Your task to perform on an android device: uninstall "Google News" Image 0: 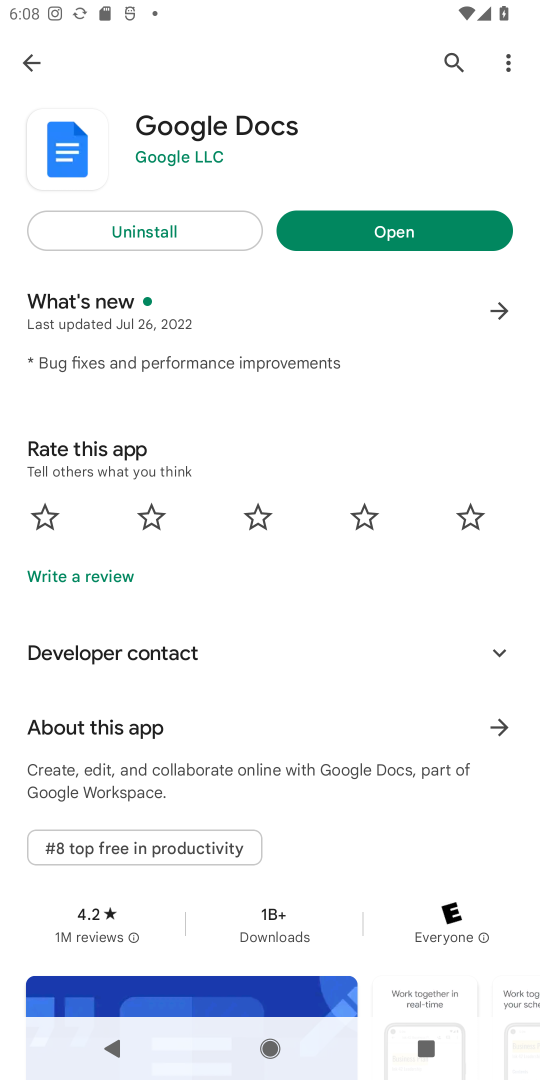
Step 0: press home button
Your task to perform on an android device: uninstall "Google News" Image 1: 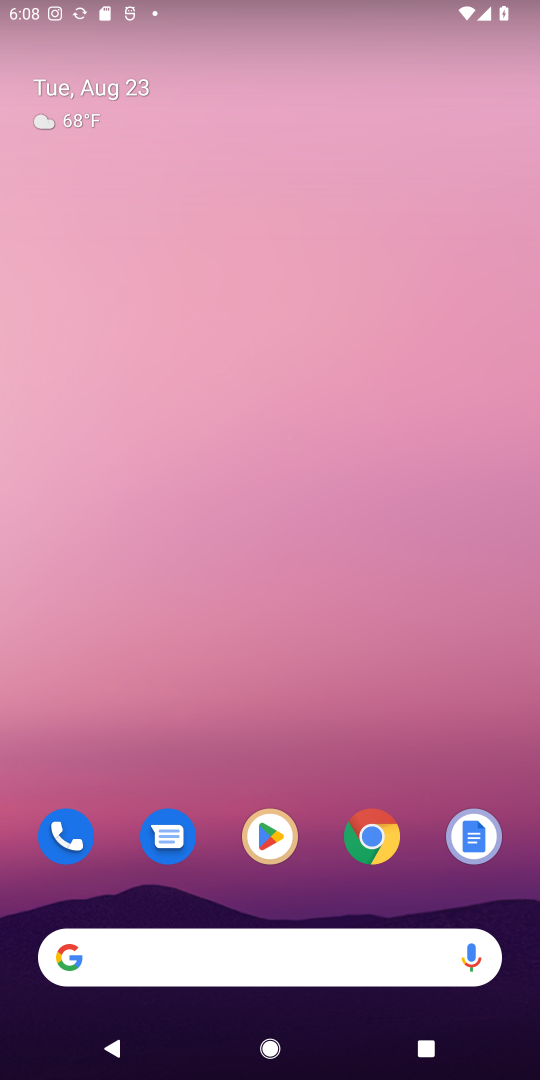
Step 1: click (275, 837)
Your task to perform on an android device: uninstall "Google News" Image 2: 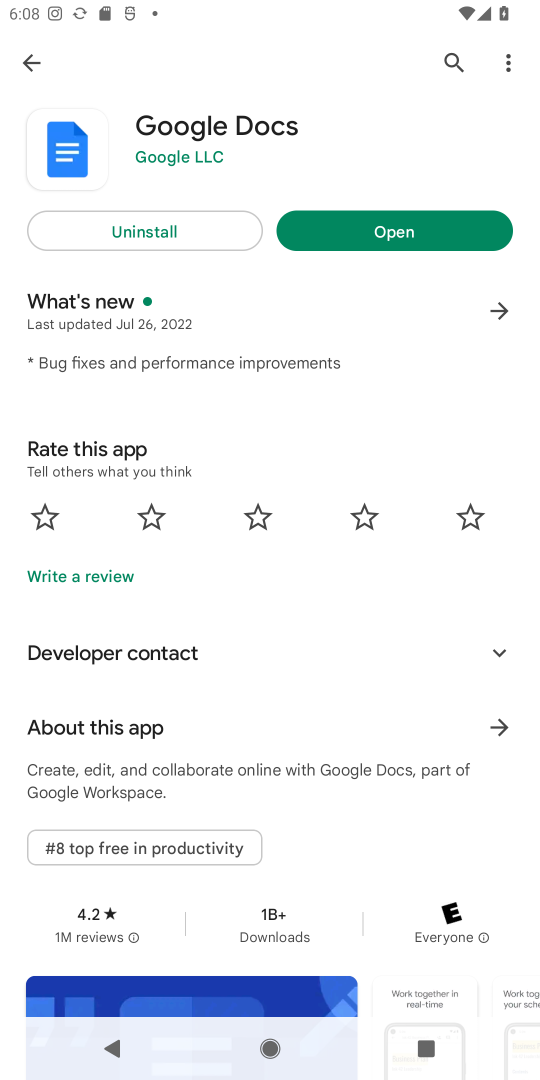
Step 2: click (452, 58)
Your task to perform on an android device: uninstall "Google News" Image 3: 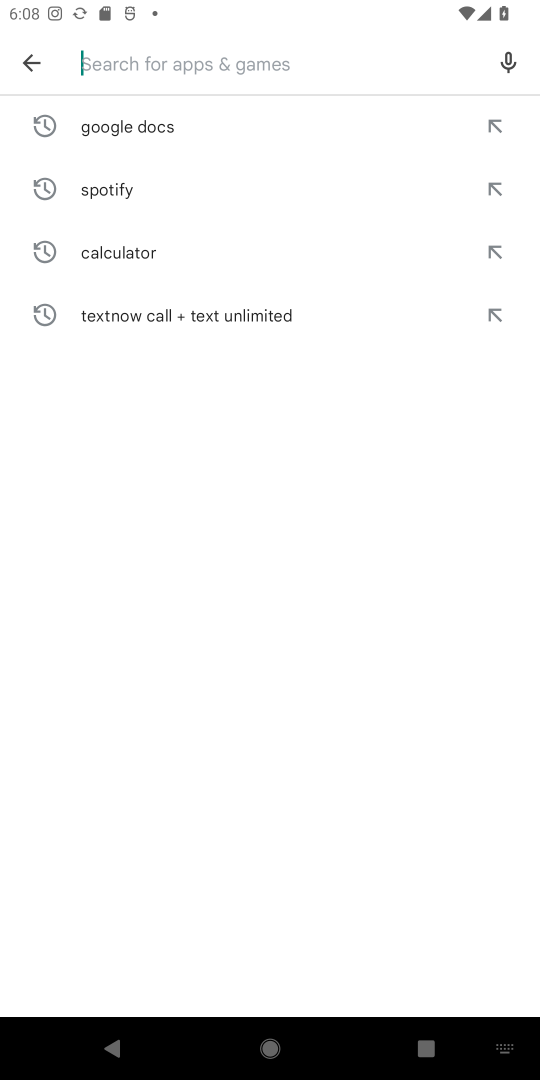
Step 3: type "Google News"
Your task to perform on an android device: uninstall "Google News" Image 4: 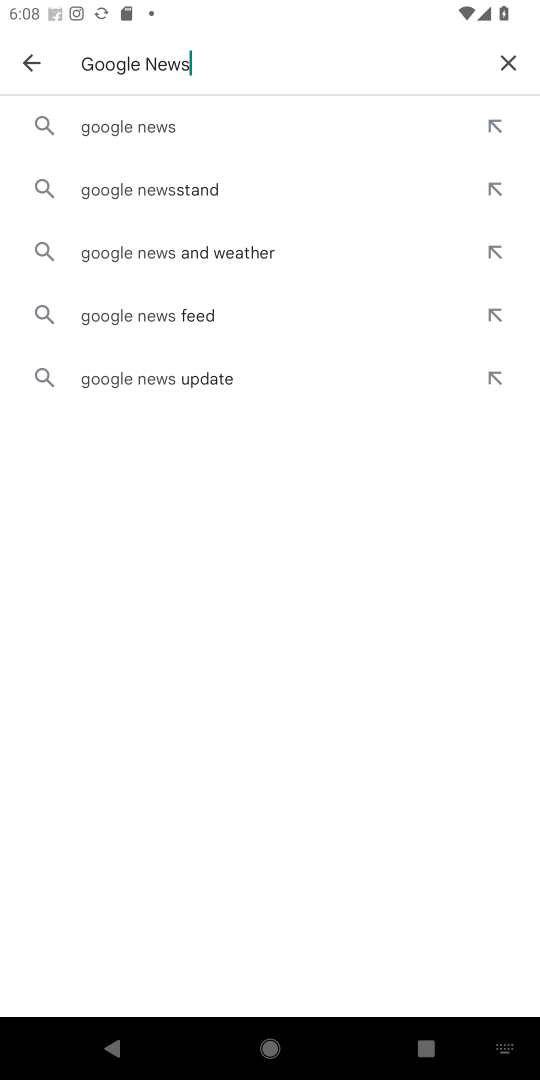
Step 4: click (168, 130)
Your task to perform on an android device: uninstall "Google News" Image 5: 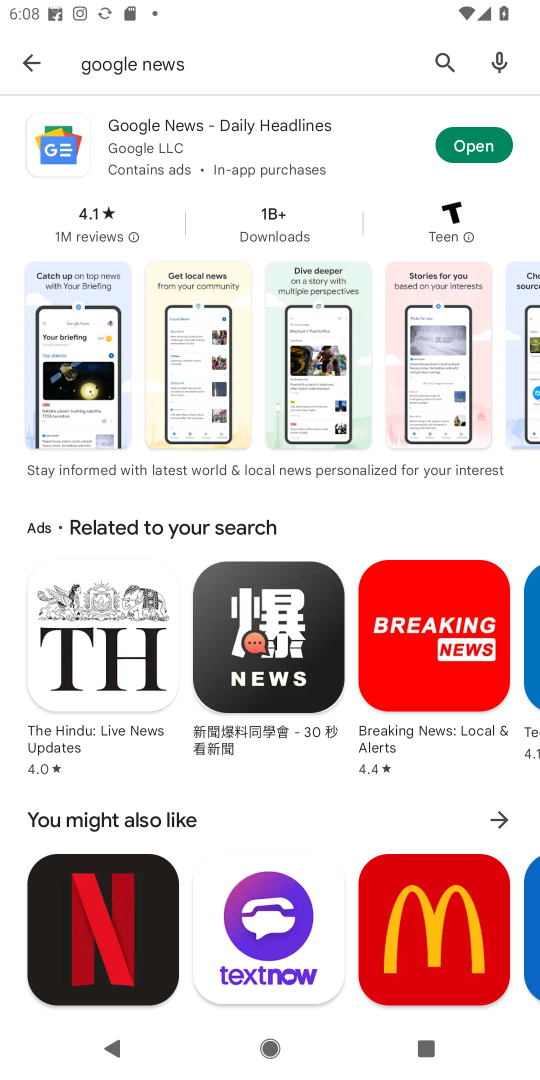
Step 5: click (119, 137)
Your task to perform on an android device: uninstall "Google News" Image 6: 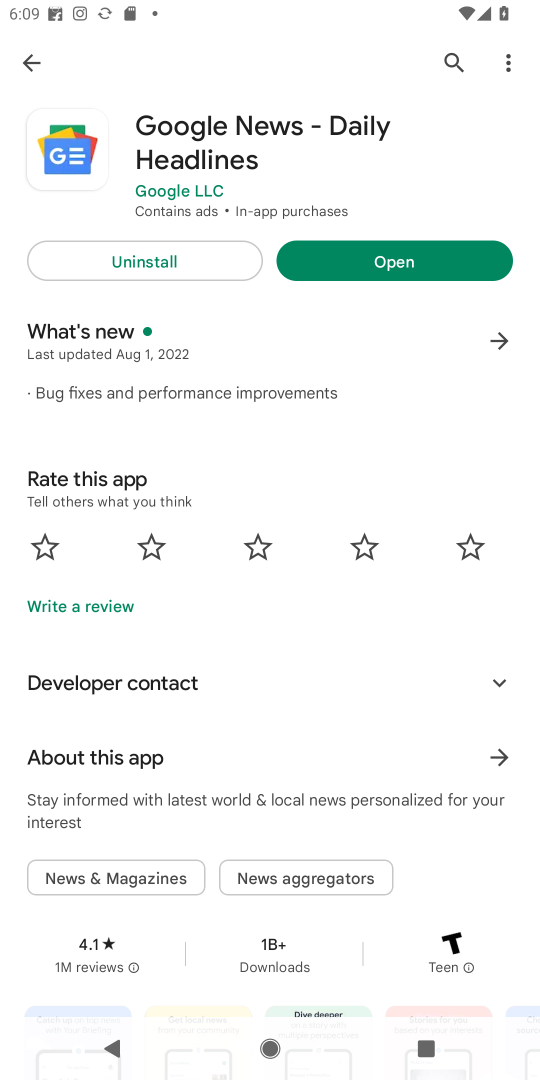
Step 6: click (154, 257)
Your task to perform on an android device: uninstall "Google News" Image 7: 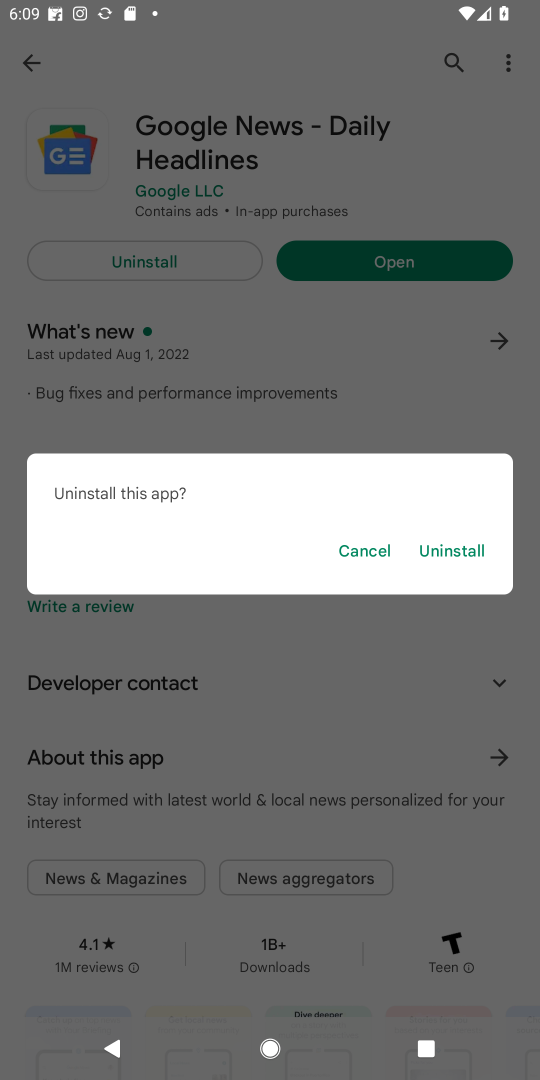
Step 7: click (457, 551)
Your task to perform on an android device: uninstall "Google News" Image 8: 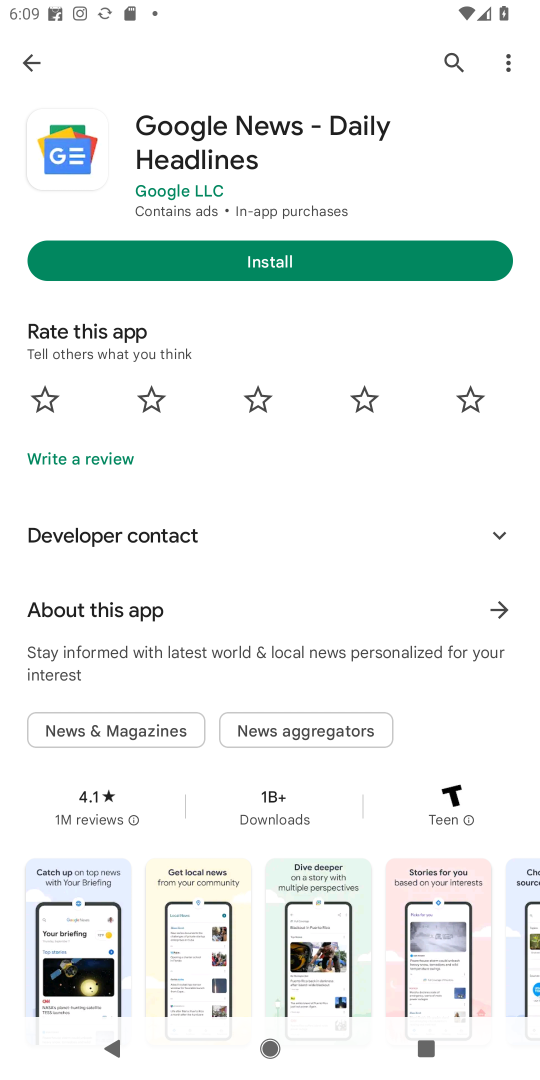
Step 8: task complete